Your task to perform on an android device: Open CNN.com Image 0: 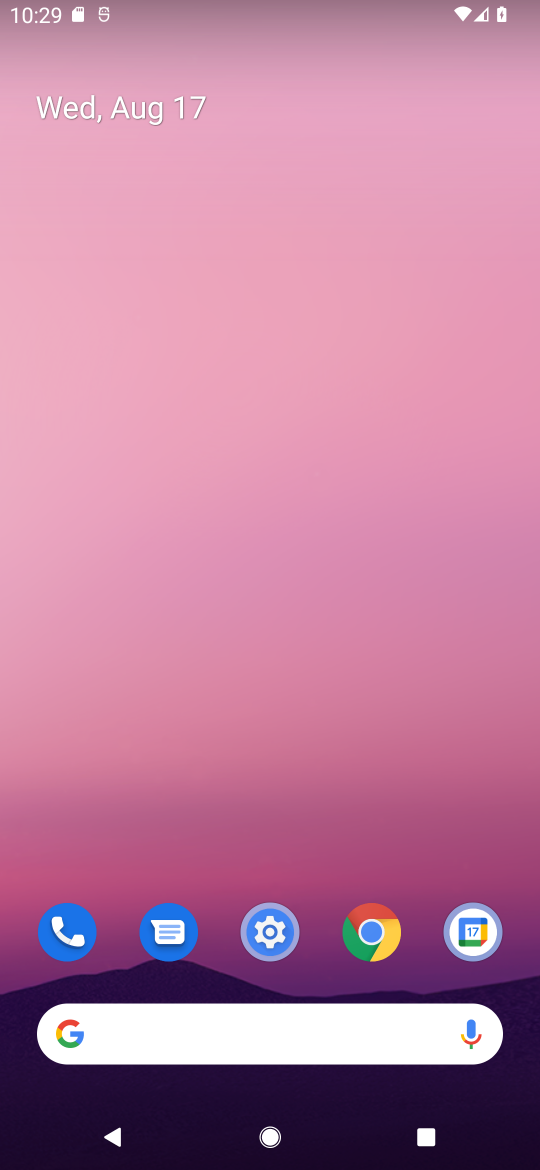
Step 0: click (376, 928)
Your task to perform on an android device: Open CNN.com Image 1: 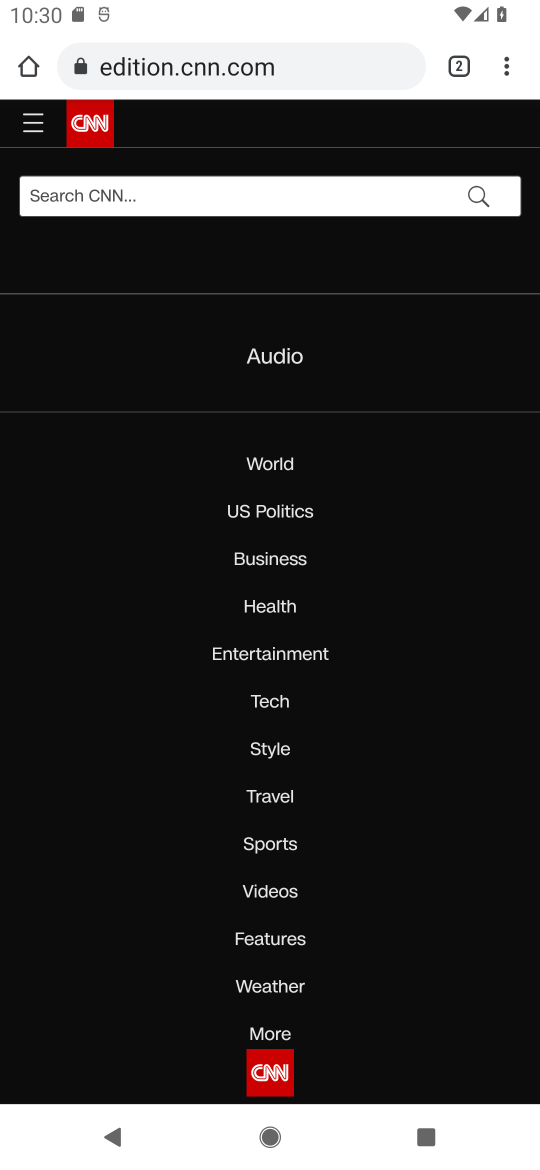
Step 1: task complete